Your task to perform on an android device: turn pop-ups off in chrome Image 0: 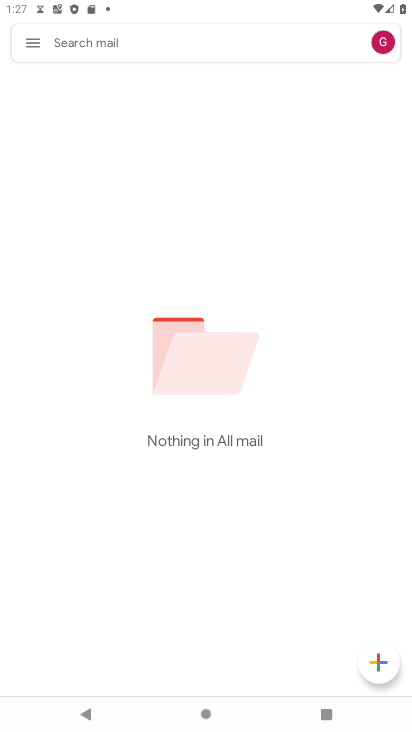
Step 0: press home button
Your task to perform on an android device: turn pop-ups off in chrome Image 1: 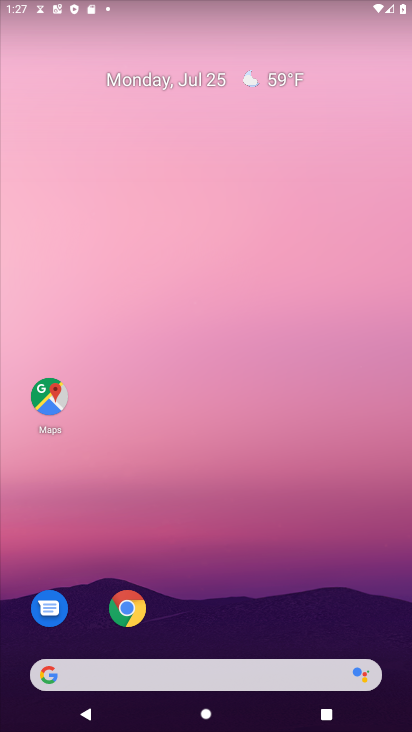
Step 1: drag from (283, 545) to (311, 42)
Your task to perform on an android device: turn pop-ups off in chrome Image 2: 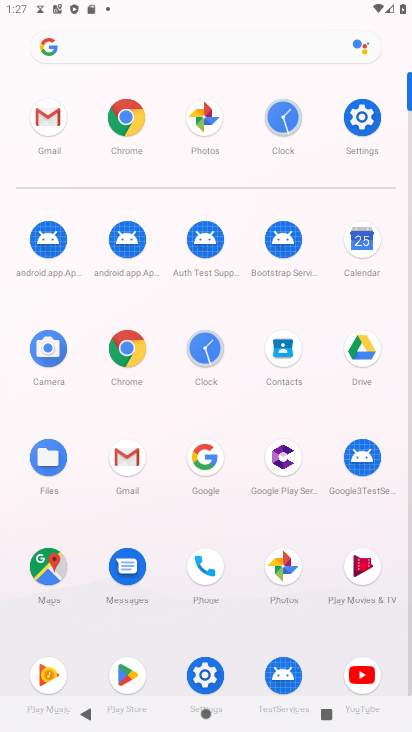
Step 2: click (145, 345)
Your task to perform on an android device: turn pop-ups off in chrome Image 3: 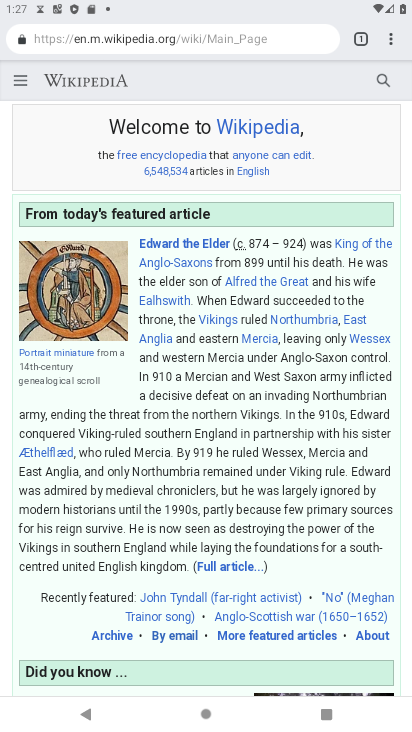
Step 3: click (394, 35)
Your task to perform on an android device: turn pop-ups off in chrome Image 4: 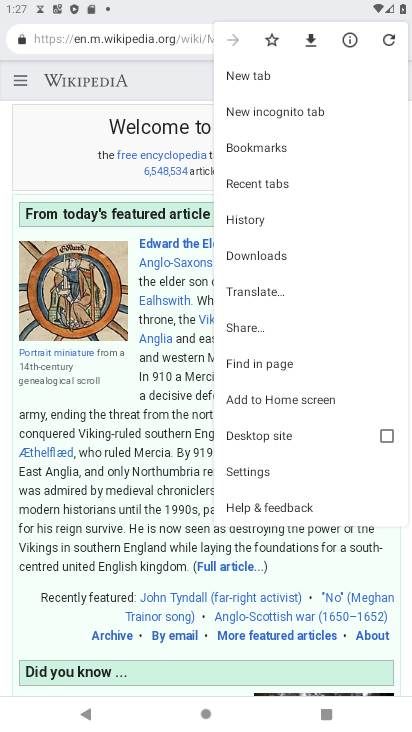
Step 4: click (257, 469)
Your task to perform on an android device: turn pop-ups off in chrome Image 5: 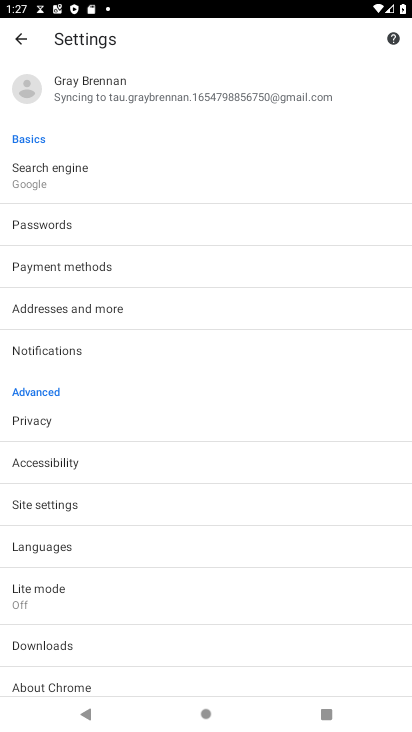
Step 5: click (96, 514)
Your task to perform on an android device: turn pop-ups off in chrome Image 6: 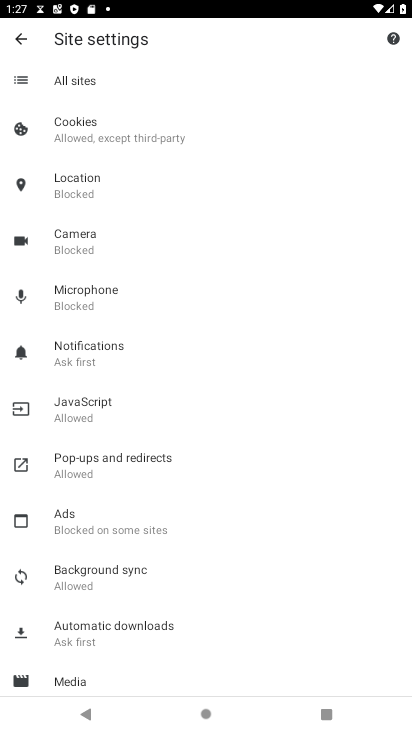
Step 6: click (164, 463)
Your task to perform on an android device: turn pop-ups off in chrome Image 7: 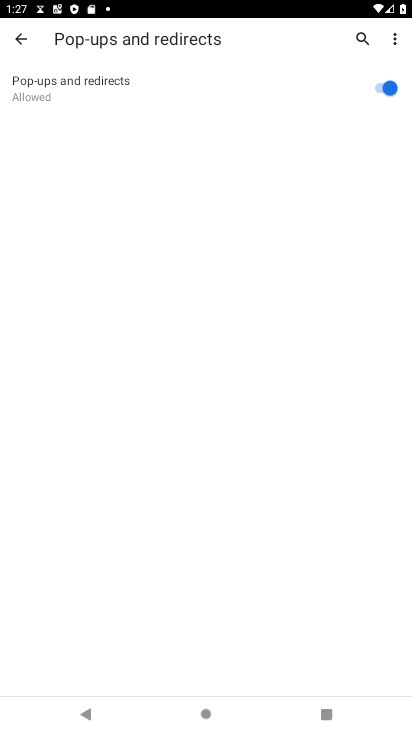
Step 7: click (394, 88)
Your task to perform on an android device: turn pop-ups off in chrome Image 8: 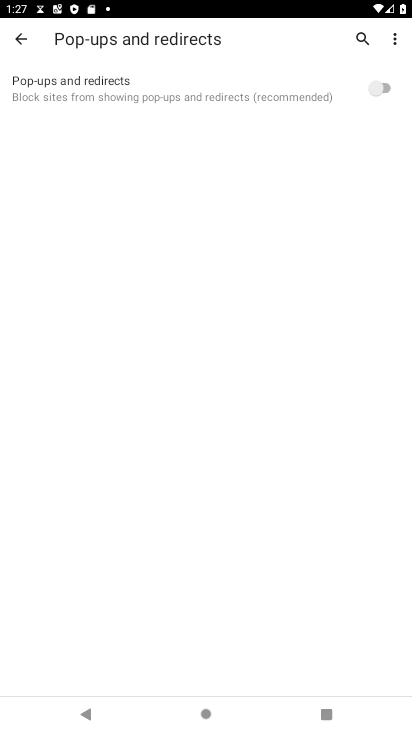
Step 8: task complete